Your task to perform on an android device: Check the weather Image 0: 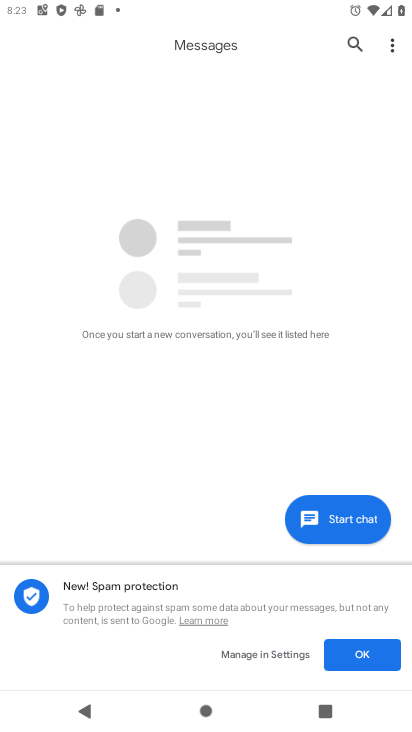
Step 0: press home button
Your task to perform on an android device: Check the weather Image 1: 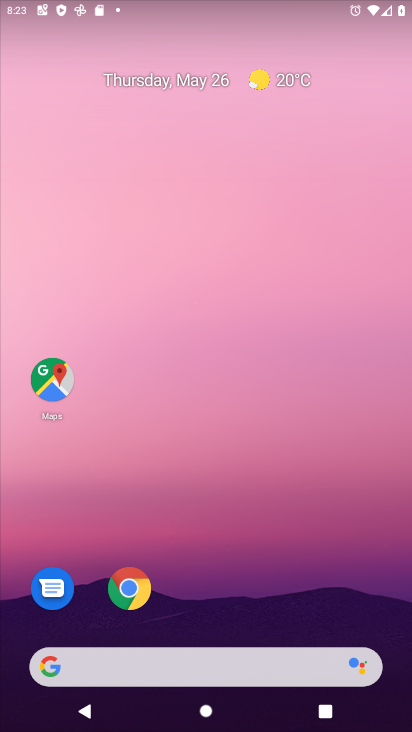
Step 1: drag from (390, 633) to (303, 22)
Your task to perform on an android device: Check the weather Image 2: 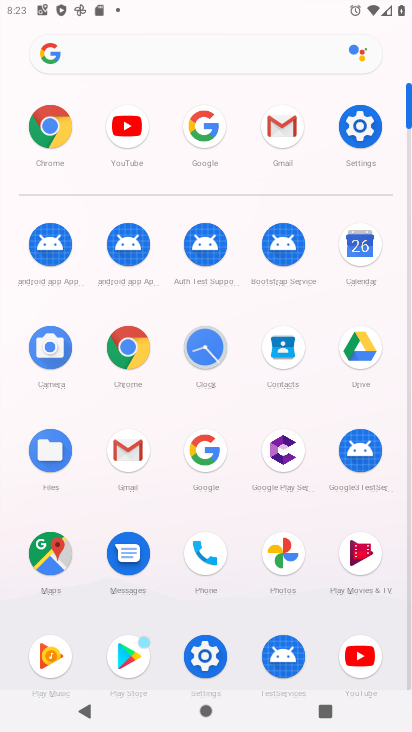
Step 2: click (196, 142)
Your task to perform on an android device: Check the weather Image 3: 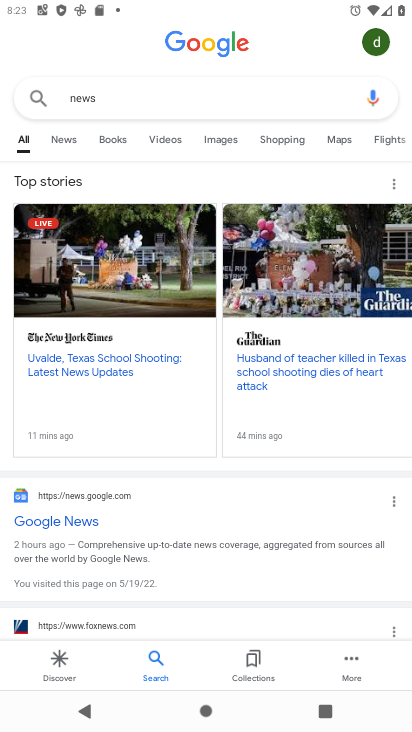
Step 3: press back button
Your task to perform on an android device: Check the weather Image 4: 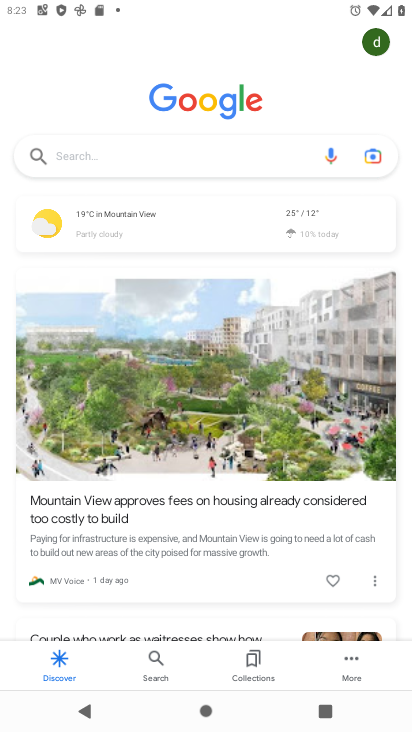
Step 4: click (106, 149)
Your task to perform on an android device: Check the weather Image 5: 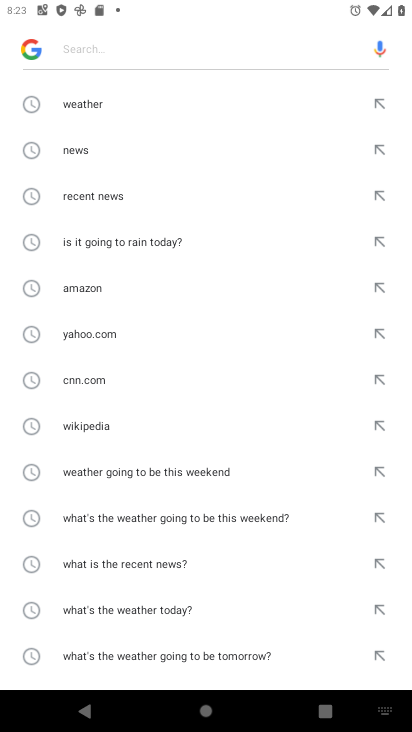
Step 5: click (151, 89)
Your task to perform on an android device: Check the weather Image 6: 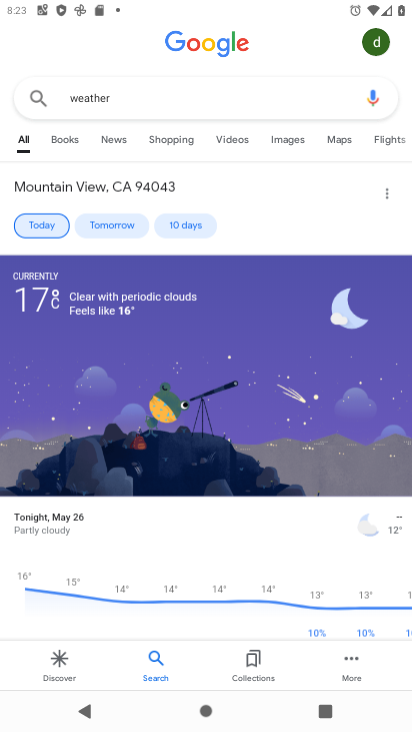
Step 6: task complete